Your task to perform on an android device: Open Google Chrome and open the bookmarks view Image 0: 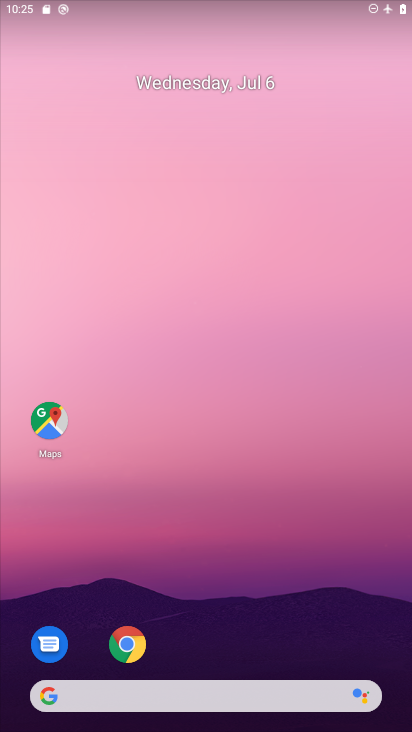
Step 0: drag from (208, 638) to (218, 31)
Your task to perform on an android device: Open Google Chrome and open the bookmarks view Image 1: 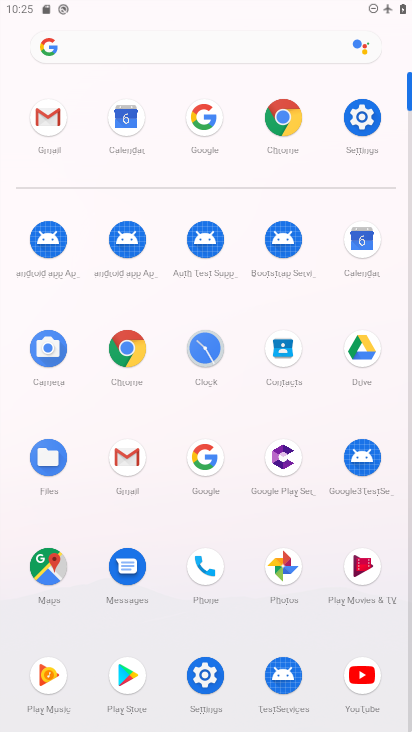
Step 1: click (289, 133)
Your task to perform on an android device: Open Google Chrome and open the bookmarks view Image 2: 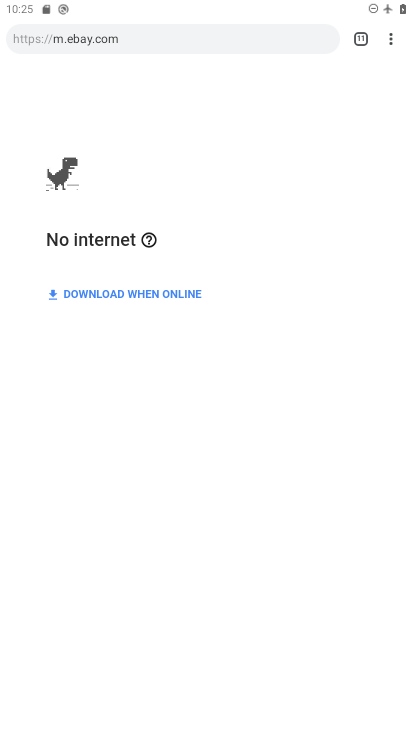
Step 2: click (386, 45)
Your task to perform on an android device: Open Google Chrome and open the bookmarks view Image 3: 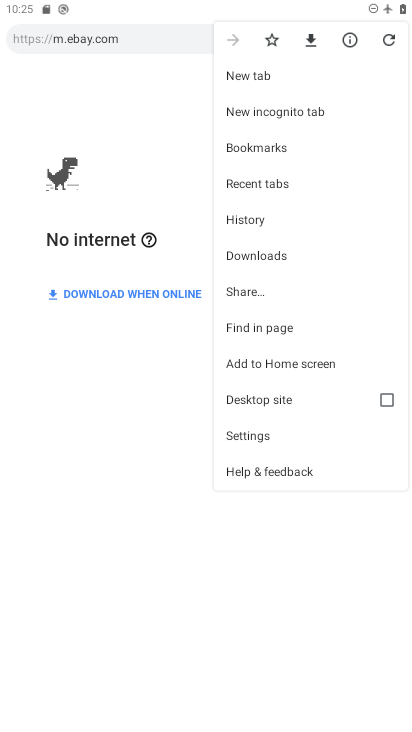
Step 3: click (271, 151)
Your task to perform on an android device: Open Google Chrome and open the bookmarks view Image 4: 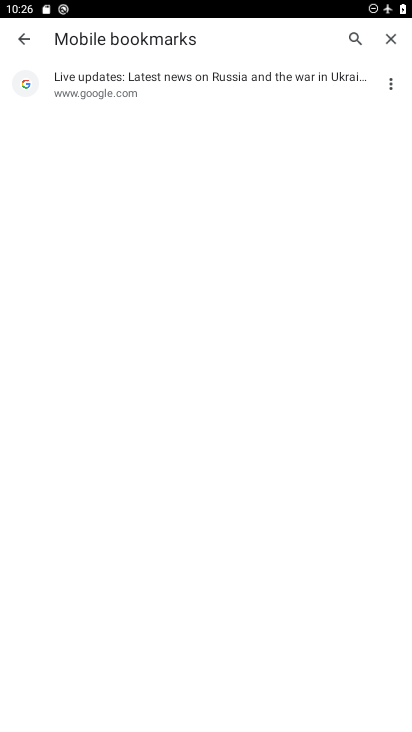
Step 4: task complete